Your task to perform on an android device: Go to notification settings Image 0: 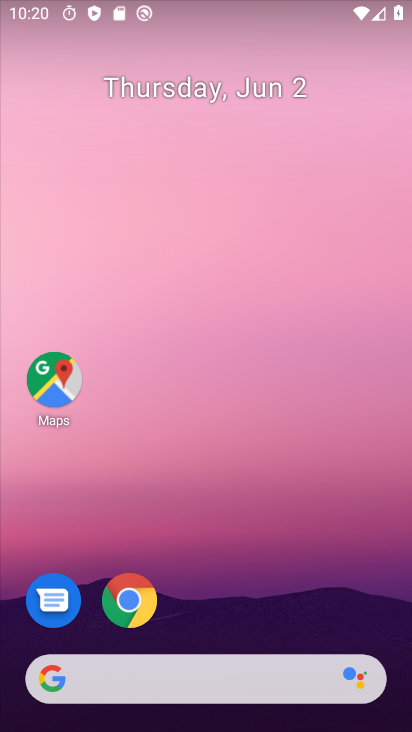
Step 0: drag from (209, 612) to (272, 8)
Your task to perform on an android device: Go to notification settings Image 1: 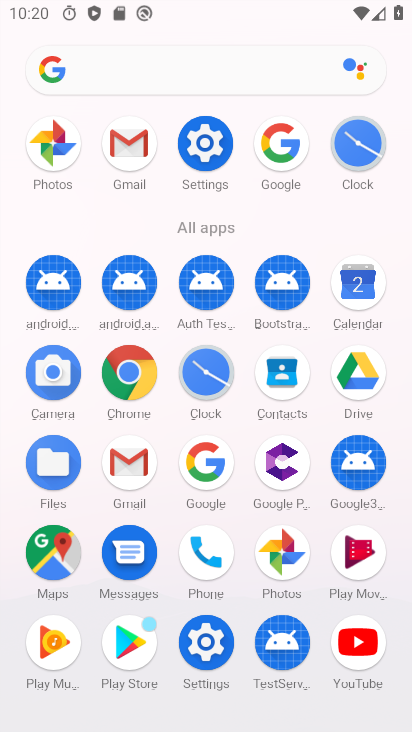
Step 1: click (215, 128)
Your task to perform on an android device: Go to notification settings Image 2: 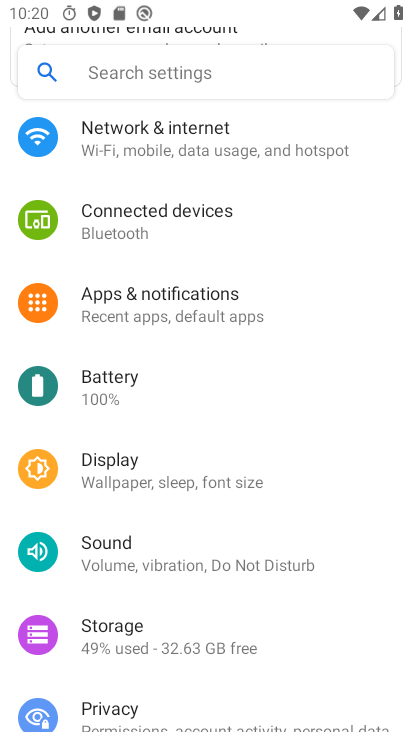
Step 2: click (163, 291)
Your task to perform on an android device: Go to notification settings Image 3: 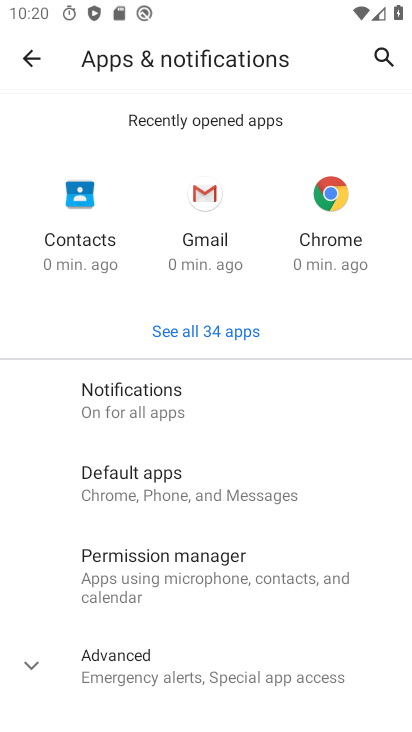
Step 3: click (138, 391)
Your task to perform on an android device: Go to notification settings Image 4: 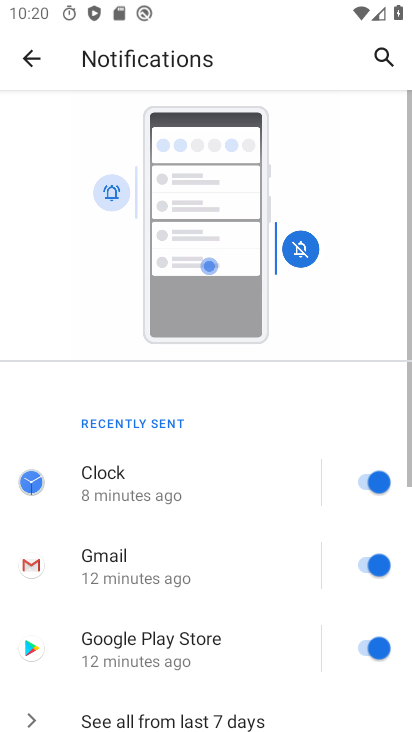
Step 4: task complete